Your task to perform on an android device: What's the price of the 1000-Watt EGO Power+ Snow Blower? Image 0: 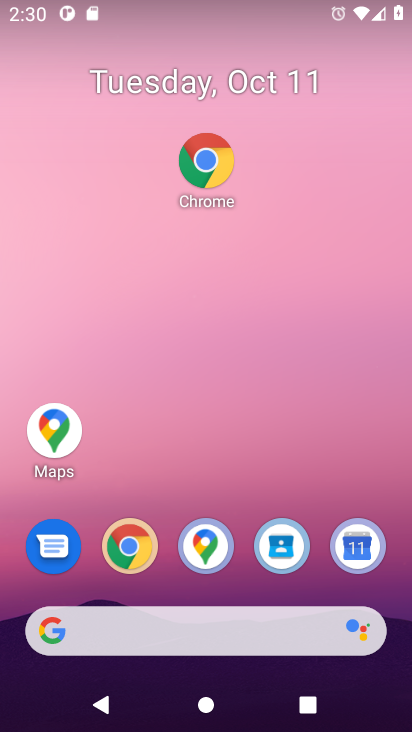
Step 0: click (213, 165)
Your task to perform on an android device: What's the price of the 1000-Watt EGO Power+ Snow Blower? Image 1: 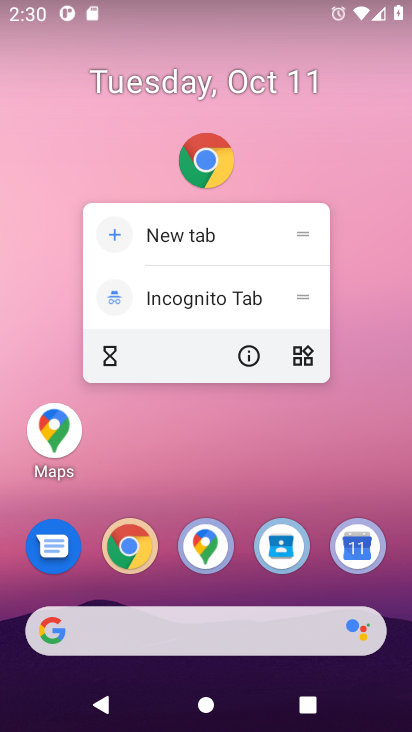
Step 1: click (220, 161)
Your task to perform on an android device: What's the price of the 1000-Watt EGO Power+ Snow Blower? Image 2: 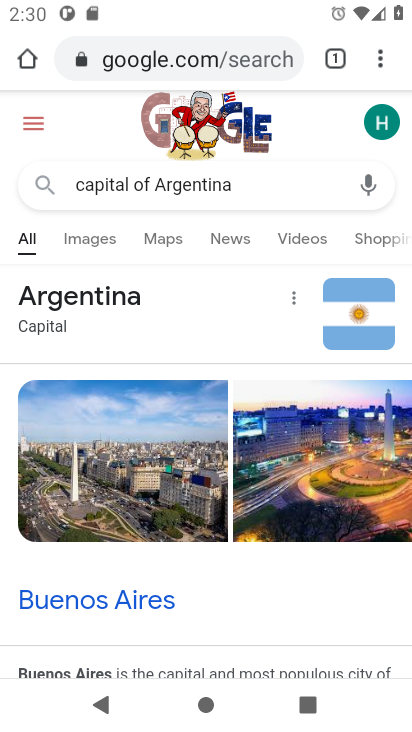
Step 2: click (218, 57)
Your task to perform on an android device: What's the price of the 1000-Watt EGO Power+ Snow Blower? Image 3: 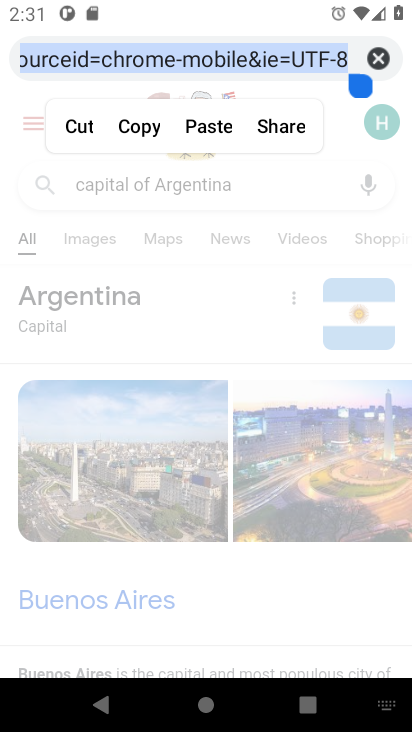
Step 3: type "price of 1000 Watt EGO power+ snow Blower"
Your task to perform on an android device: What's the price of the 1000-Watt EGO Power+ Snow Blower? Image 4: 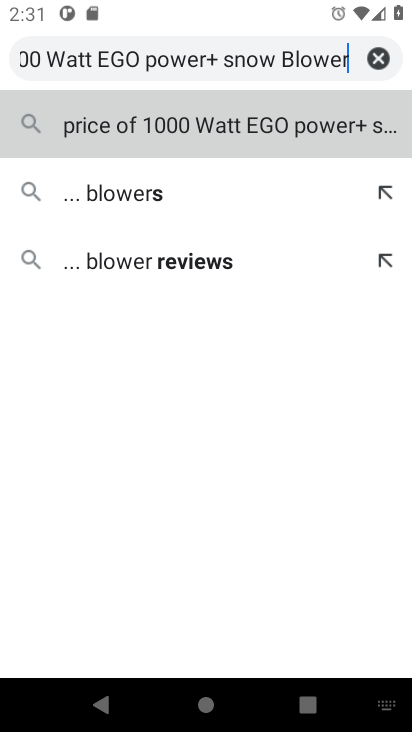
Step 4: press enter
Your task to perform on an android device: What's the price of the 1000-Watt EGO Power+ Snow Blower? Image 5: 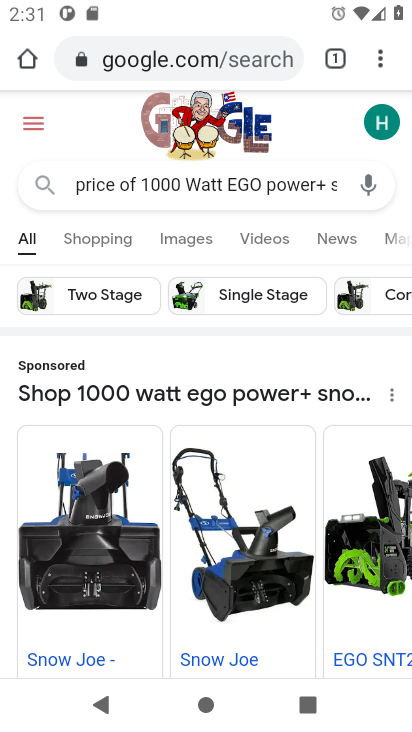
Step 5: drag from (223, 521) to (240, 248)
Your task to perform on an android device: What's the price of the 1000-Watt EGO Power+ Snow Blower? Image 6: 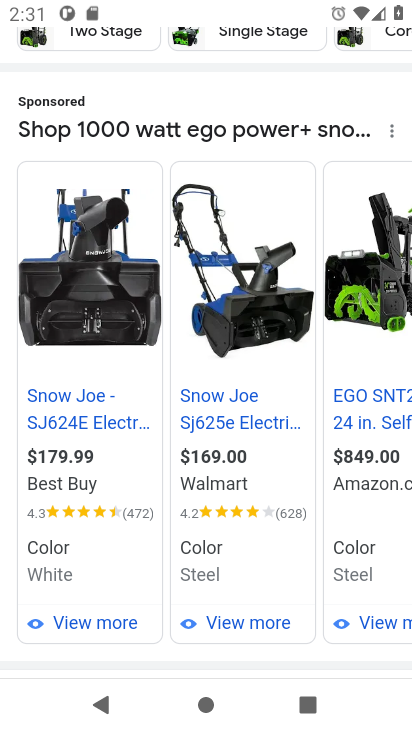
Step 6: drag from (179, 575) to (202, 192)
Your task to perform on an android device: What's the price of the 1000-Watt EGO Power+ Snow Blower? Image 7: 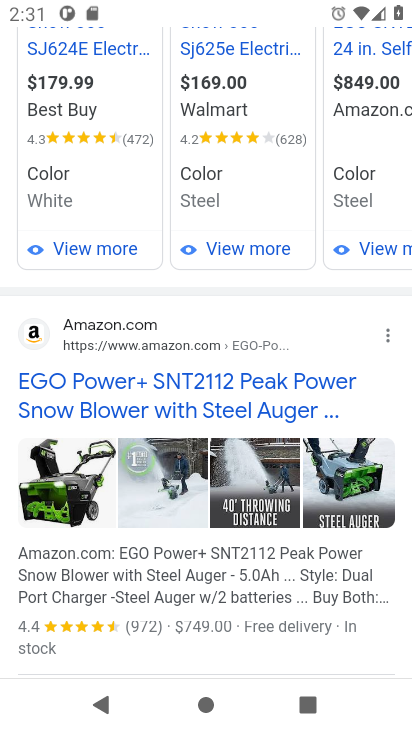
Step 7: drag from (191, 599) to (206, 441)
Your task to perform on an android device: What's the price of the 1000-Watt EGO Power+ Snow Blower? Image 8: 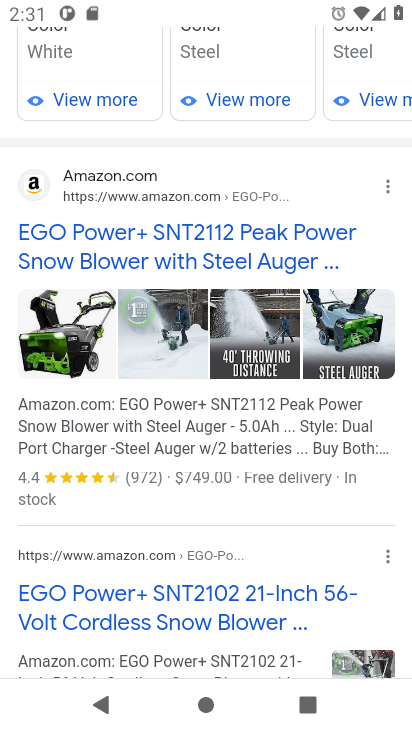
Step 8: click (183, 246)
Your task to perform on an android device: What's the price of the 1000-Watt EGO Power+ Snow Blower? Image 9: 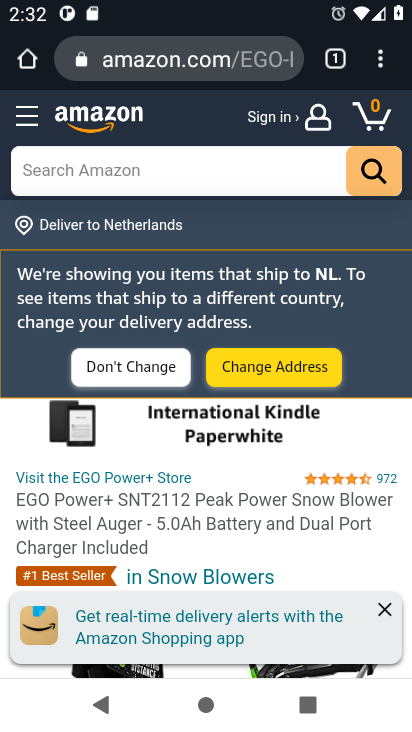
Step 9: task complete